Your task to perform on an android device: What's on my calendar tomorrow? Image 0: 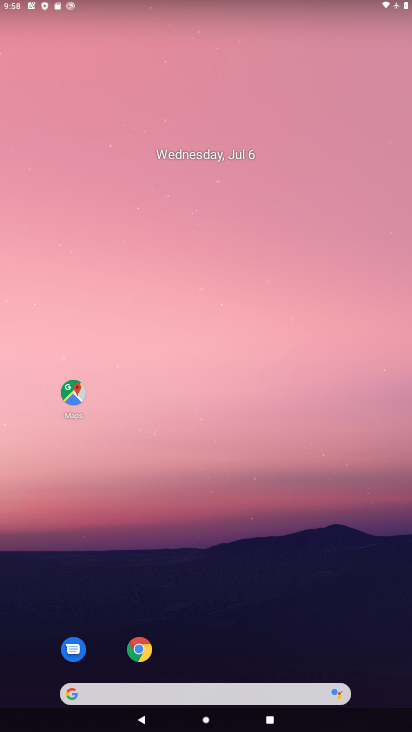
Step 0: drag from (372, 614) to (328, 170)
Your task to perform on an android device: What's on my calendar tomorrow? Image 1: 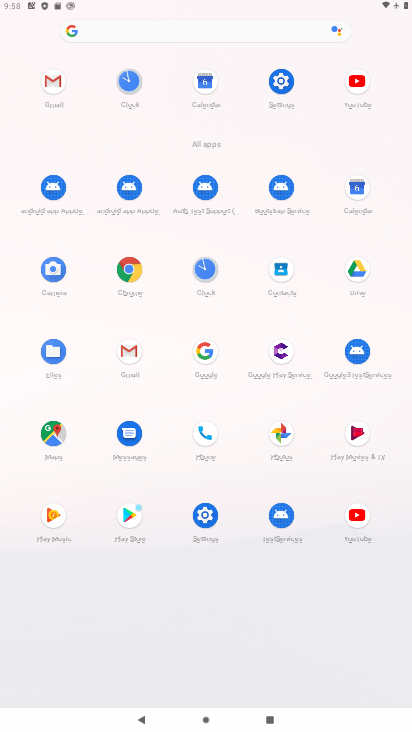
Step 1: click (282, 273)
Your task to perform on an android device: What's on my calendar tomorrow? Image 2: 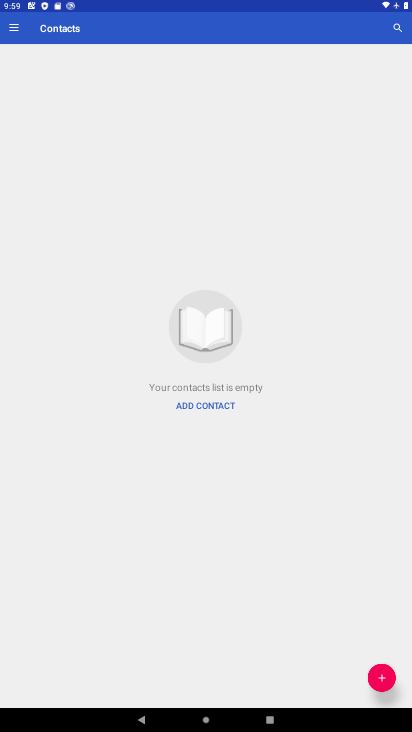
Step 2: press back button
Your task to perform on an android device: What's on my calendar tomorrow? Image 3: 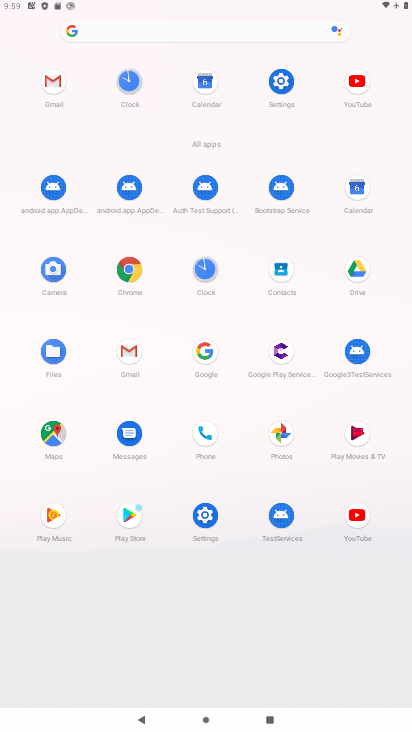
Step 3: click (358, 186)
Your task to perform on an android device: What's on my calendar tomorrow? Image 4: 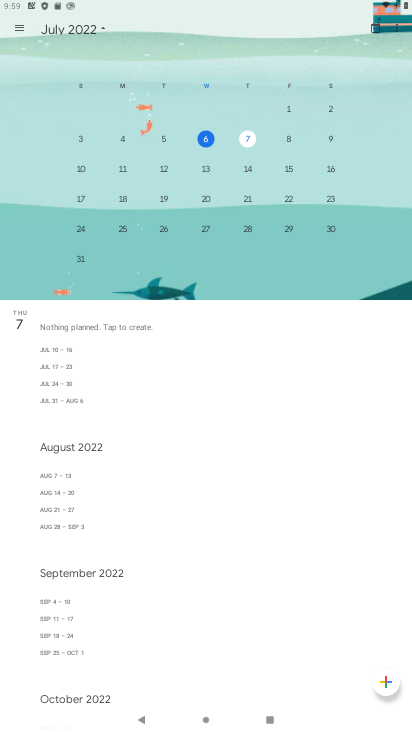
Step 4: click (245, 134)
Your task to perform on an android device: What's on my calendar tomorrow? Image 5: 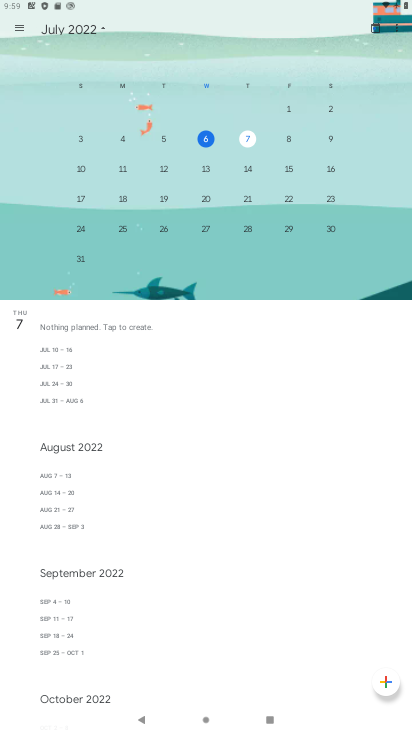
Step 5: task complete